Your task to perform on an android device: check storage Image 0: 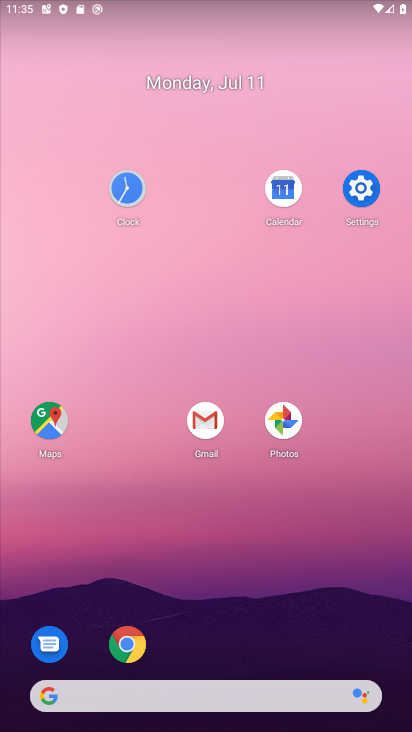
Step 0: click (356, 175)
Your task to perform on an android device: check storage Image 1: 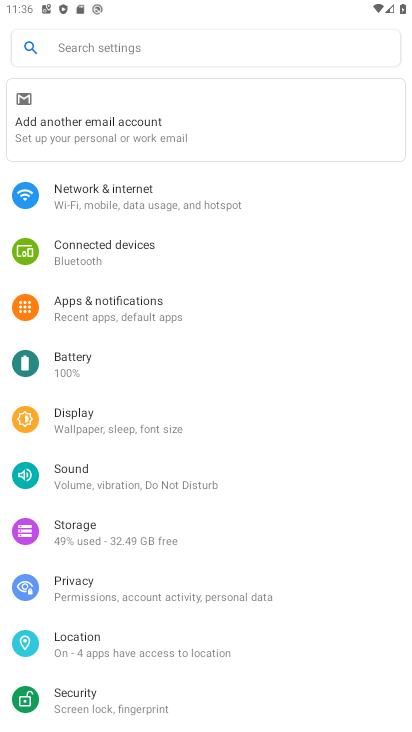
Step 1: click (109, 527)
Your task to perform on an android device: check storage Image 2: 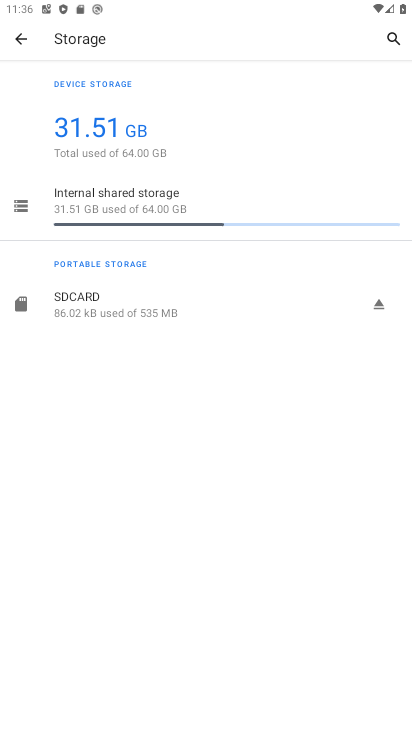
Step 2: task complete